Your task to perform on an android device: turn off data saver in the chrome app Image 0: 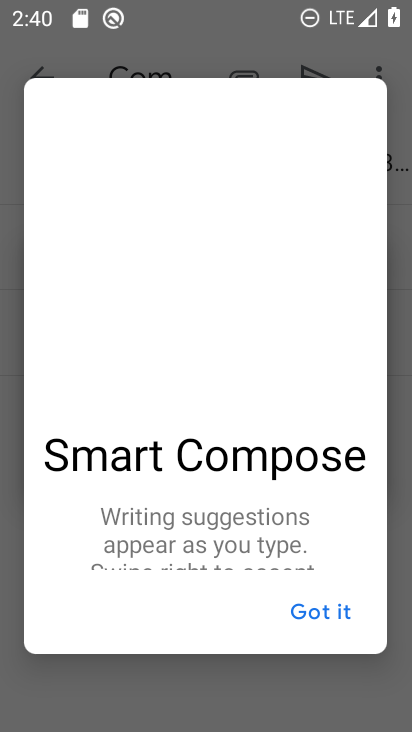
Step 0: press home button
Your task to perform on an android device: turn off data saver in the chrome app Image 1: 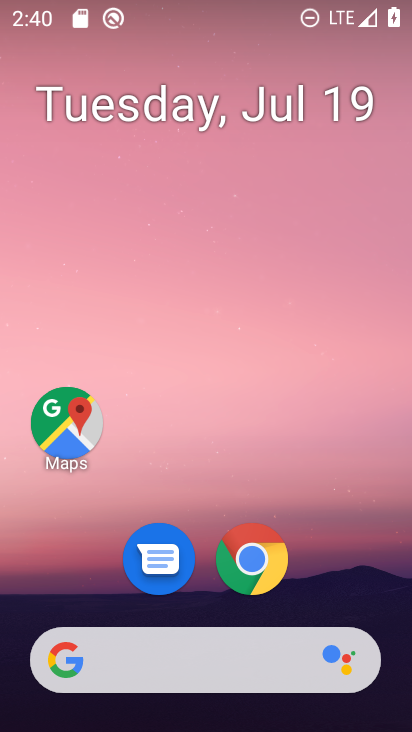
Step 1: drag from (258, 665) to (303, 196)
Your task to perform on an android device: turn off data saver in the chrome app Image 2: 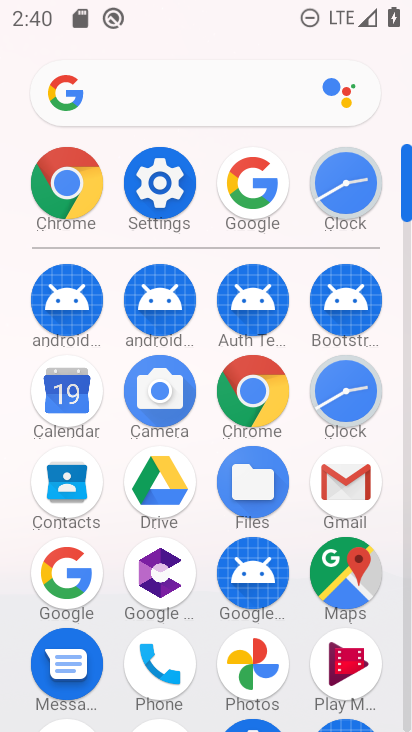
Step 2: click (265, 406)
Your task to perform on an android device: turn off data saver in the chrome app Image 3: 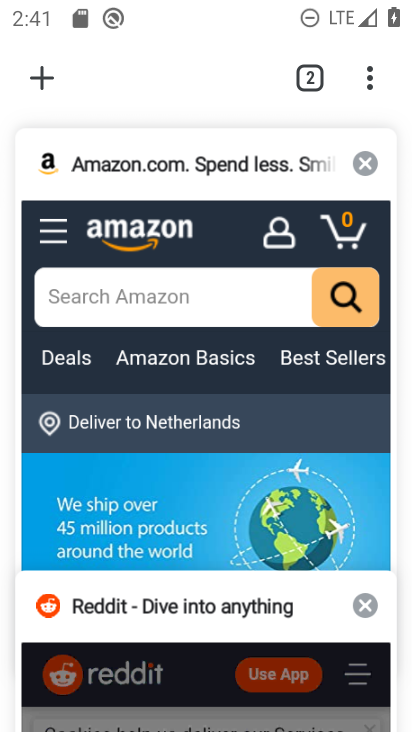
Step 3: click (181, 473)
Your task to perform on an android device: turn off data saver in the chrome app Image 4: 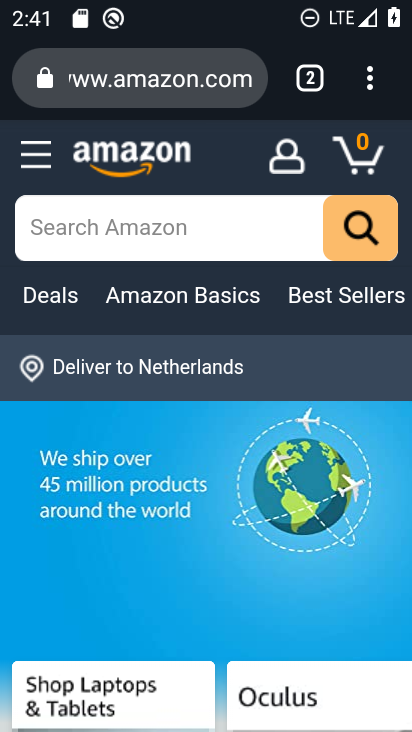
Step 4: click (365, 84)
Your task to perform on an android device: turn off data saver in the chrome app Image 5: 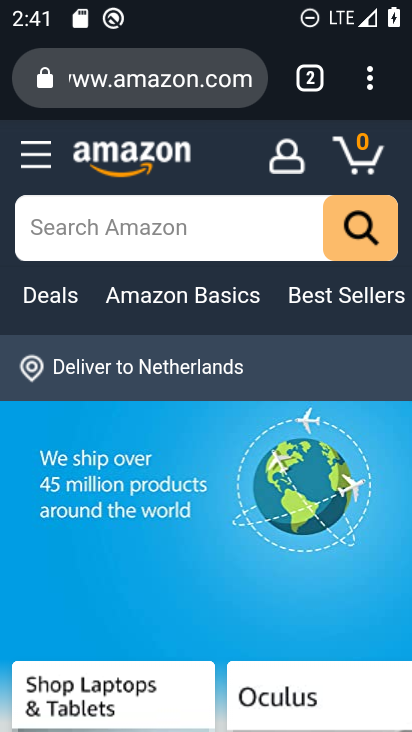
Step 5: click (370, 80)
Your task to perform on an android device: turn off data saver in the chrome app Image 6: 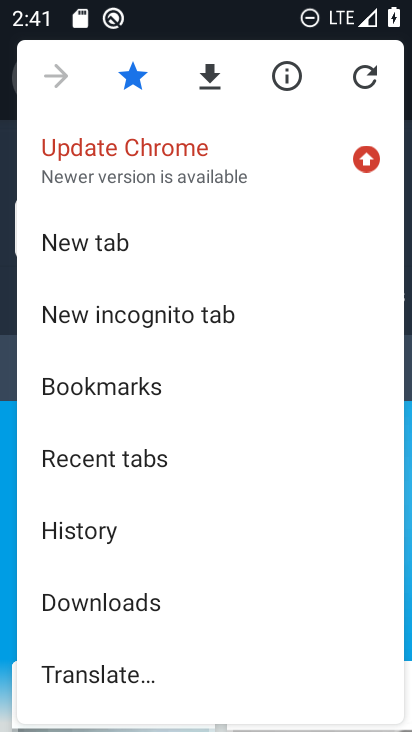
Step 6: drag from (137, 629) to (229, 265)
Your task to perform on an android device: turn off data saver in the chrome app Image 7: 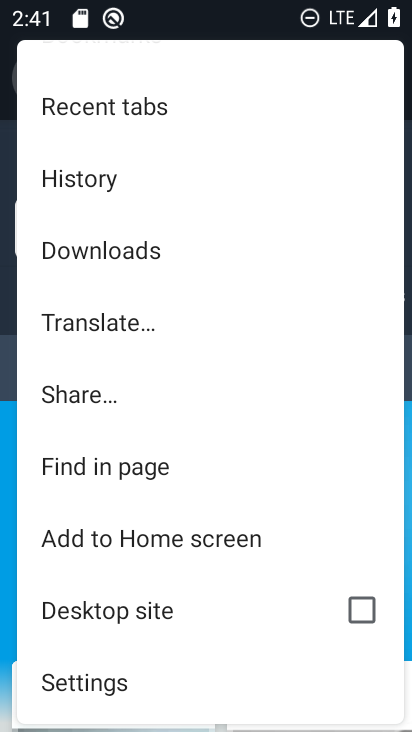
Step 7: click (113, 680)
Your task to perform on an android device: turn off data saver in the chrome app Image 8: 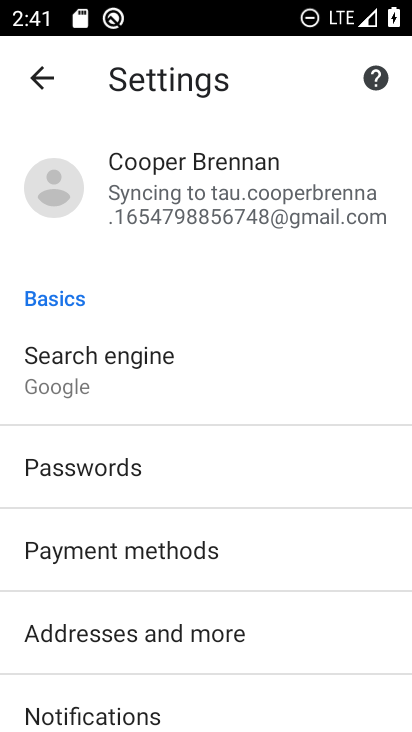
Step 8: drag from (103, 681) to (242, 241)
Your task to perform on an android device: turn off data saver in the chrome app Image 9: 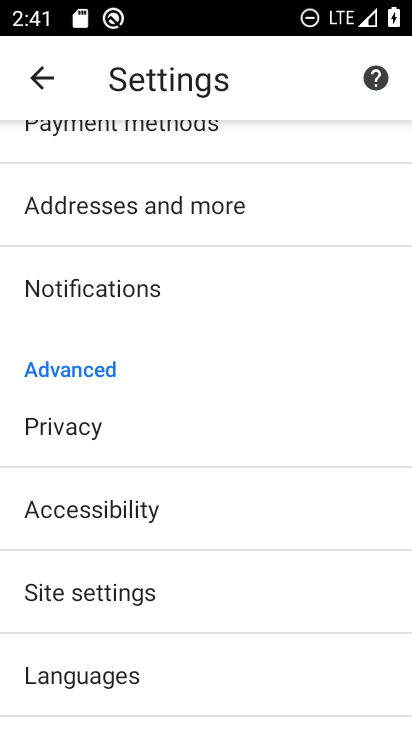
Step 9: drag from (118, 618) to (152, 275)
Your task to perform on an android device: turn off data saver in the chrome app Image 10: 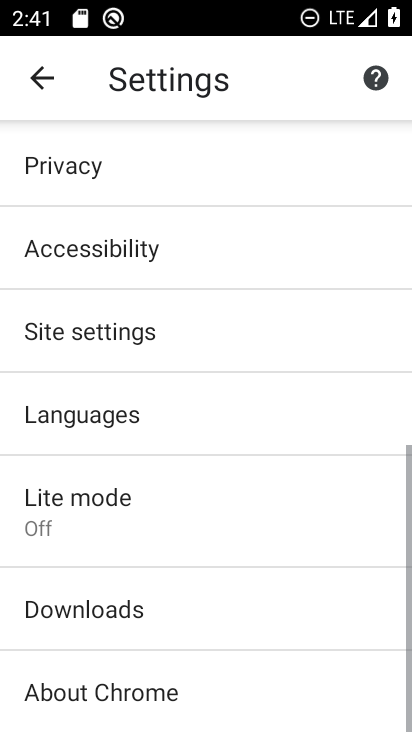
Step 10: drag from (141, 644) to (178, 389)
Your task to perform on an android device: turn off data saver in the chrome app Image 11: 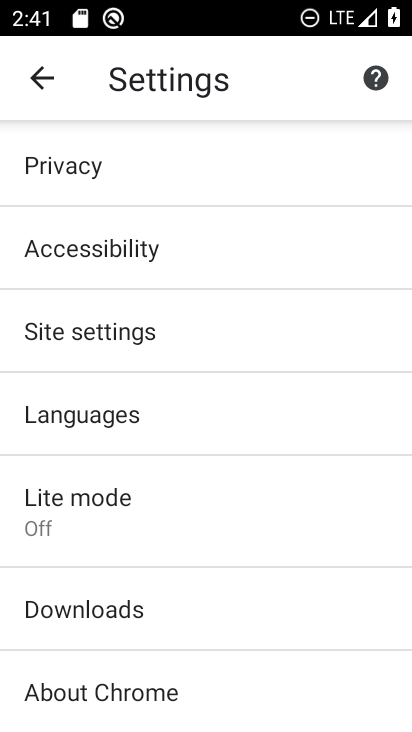
Step 11: click (140, 526)
Your task to perform on an android device: turn off data saver in the chrome app Image 12: 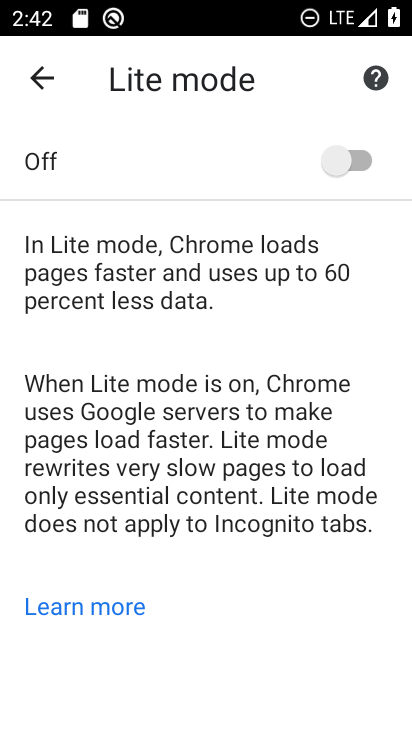
Step 12: task complete